Your task to perform on an android device: Open calendar and show me the third week of next month Image 0: 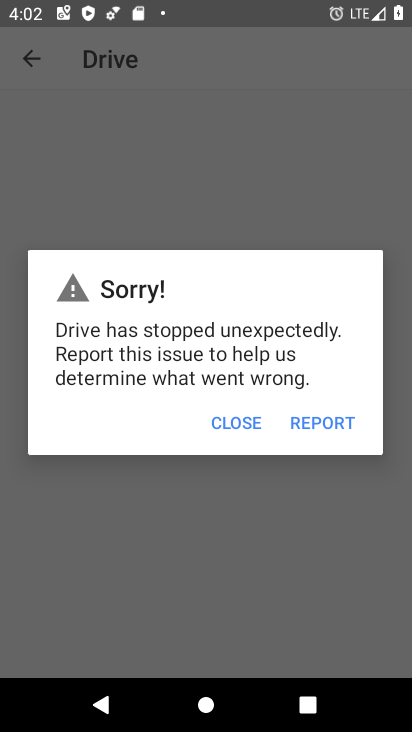
Step 0: press home button
Your task to perform on an android device: Open calendar and show me the third week of next month Image 1: 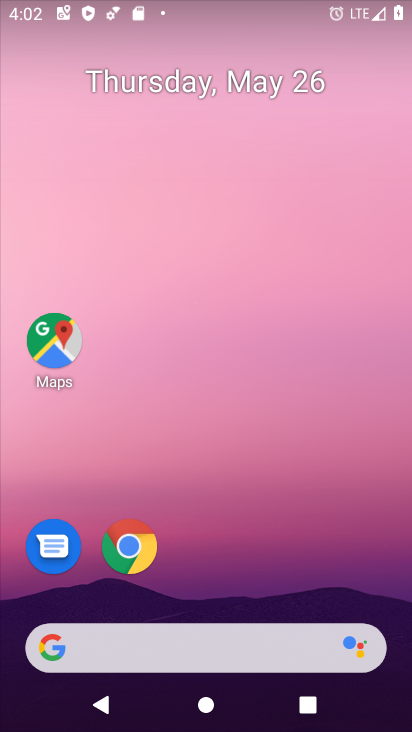
Step 1: drag from (257, 553) to (305, 21)
Your task to perform on an android device: Open calendar and show me the third week of next month Image 2: 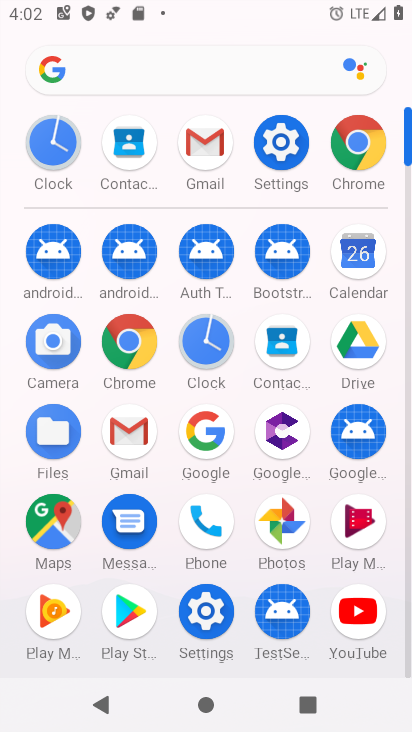
Step 2: click (361, 257)
Your task to perform on an android device: Open calendar and show me the third week of next month Image 3: 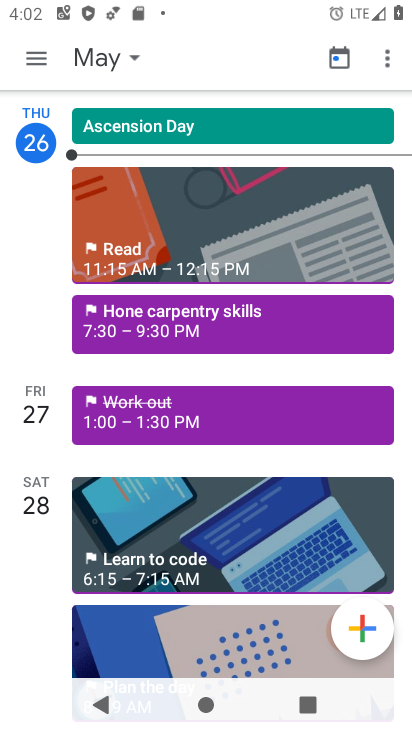
Step 3: click (121, 52)
Your task to perform on an android device: Open calendar and show me the third week of next month Image 4: 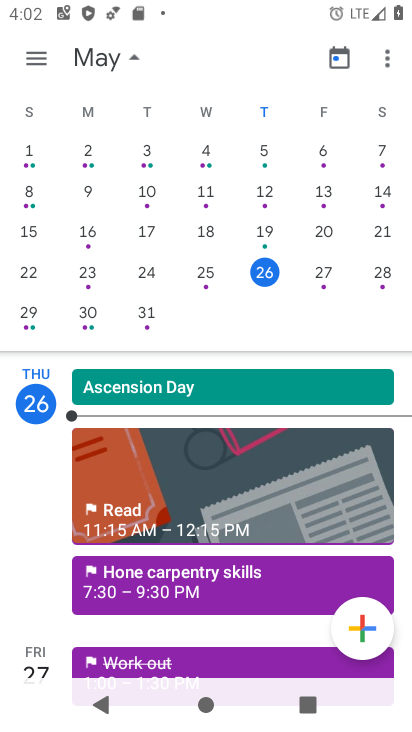
Step 4: drag from (386, 204) to (60, 167)
Your task to perform on an android device: Open calendar and show me the third week of next month Image 5: 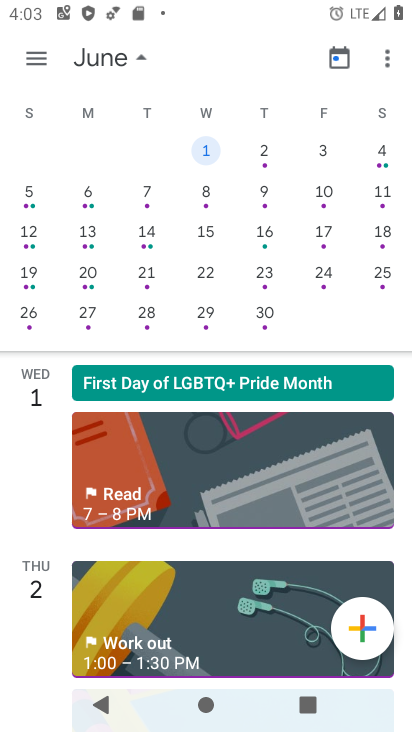
Step 5: click (83, 229)
Your task to perform on an android device: Open calendar and show me the third week of next month Image 6: 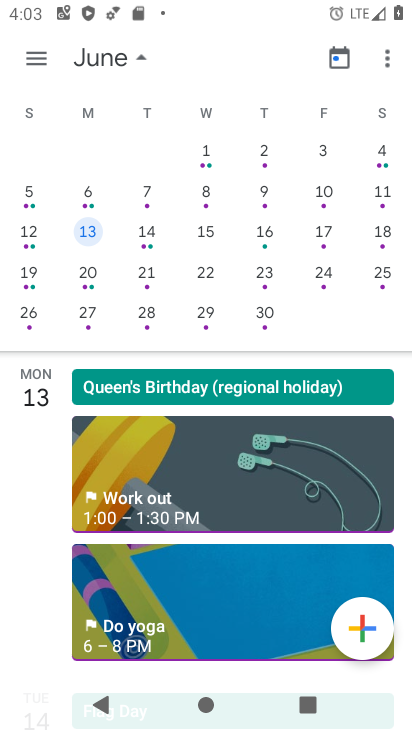
Step 6: task complete